Your task to perform on an android device: Open Yahoo.com Image 0: 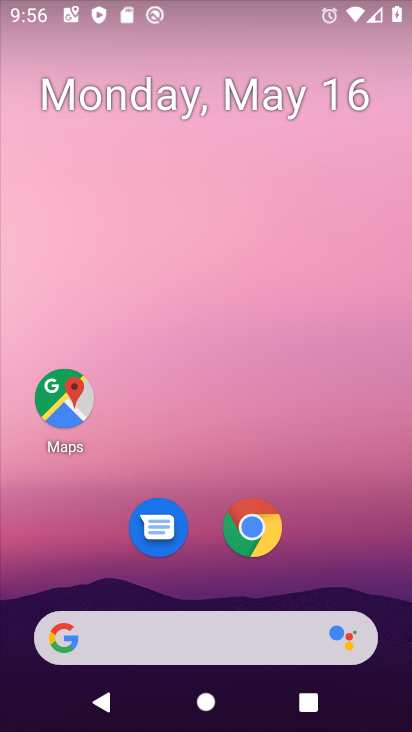
Step 0: click (259, 530)
Your task to perform on an android device: Open Yahoo.com Image 1: 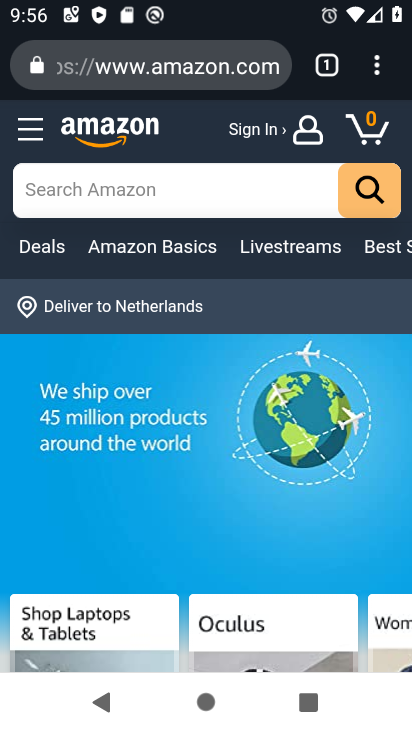
Step 1: click (119, 65)
Your task to perform on an android device: Open Yahoo.com Image 2: 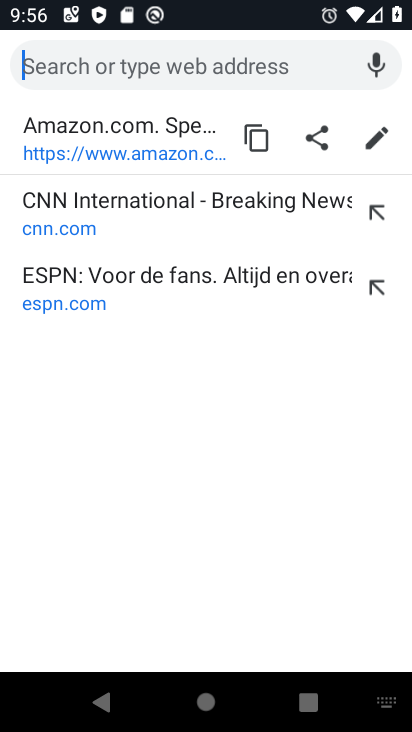
Step 2: type "yahoo.com"
Your task to perform on an android device: Open Yahoo.com Image 3: 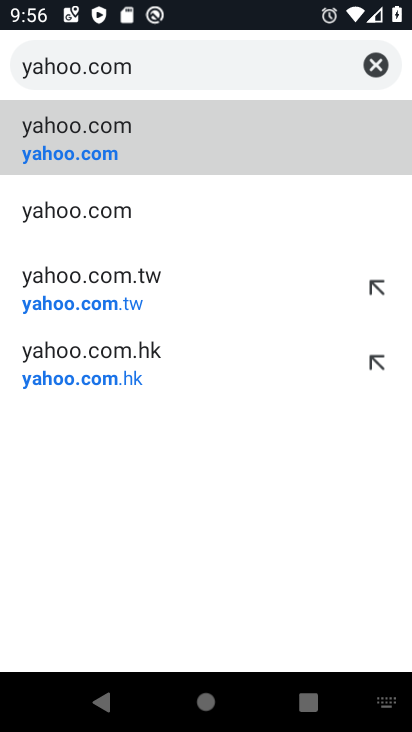
Step 3: click (94, 152)
Your task to perform on an android device: Open Yahoo.com Image 4: 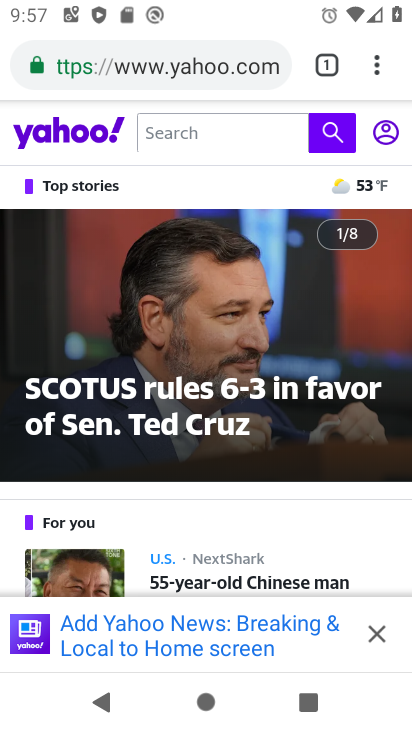
Step 4: task complete